Your task to perform on an android device: change text size in settings app Image 0: 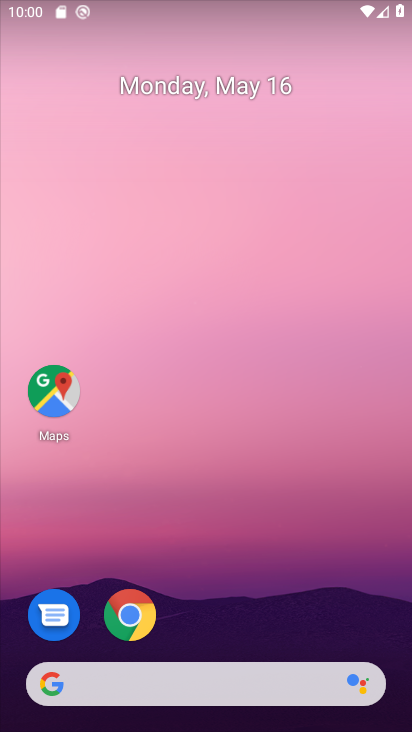
Step 0: drag from (293, 604) to (220, 53)
Your task to perform on an android device: change text size in settings app Image 1: 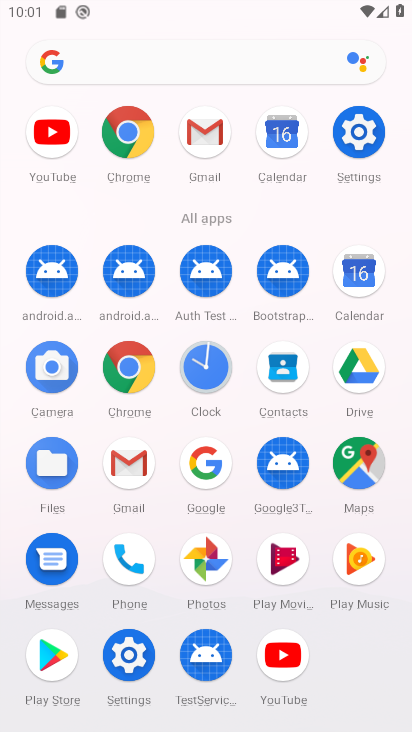
Step 1: drag from (2, 514) to (1, 283)
Your task to perform on an android device: change text size in settings app Image 2: 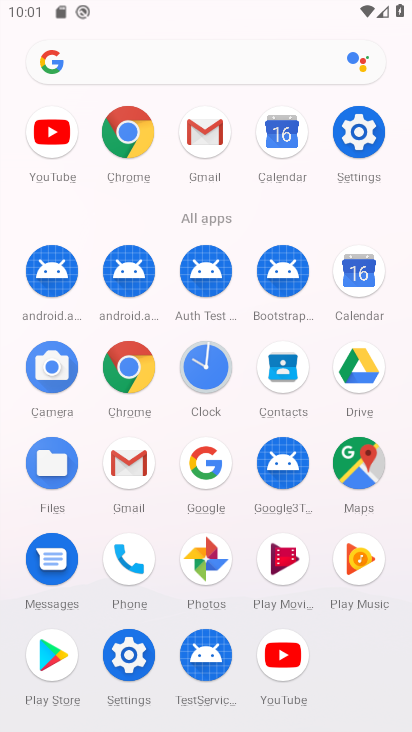
Step 2: click (124, 649)
Your task to perform on an android device: change text size in settings app Image 3: 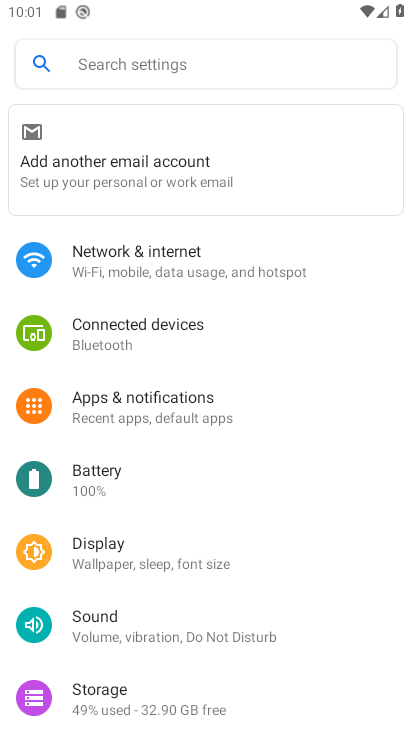
Step 3: click (150, 556)
Your task to perform on an android device: change text size in settings app Image 4: 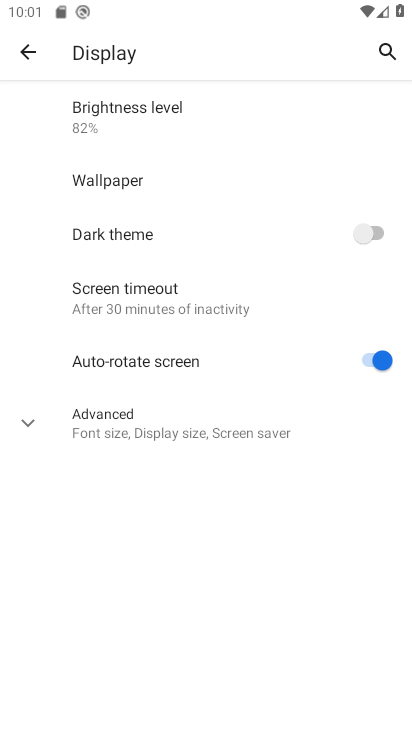
Step 4: click (34, 430)
Your task to perform on an android device: change text size in settings app Image 5: 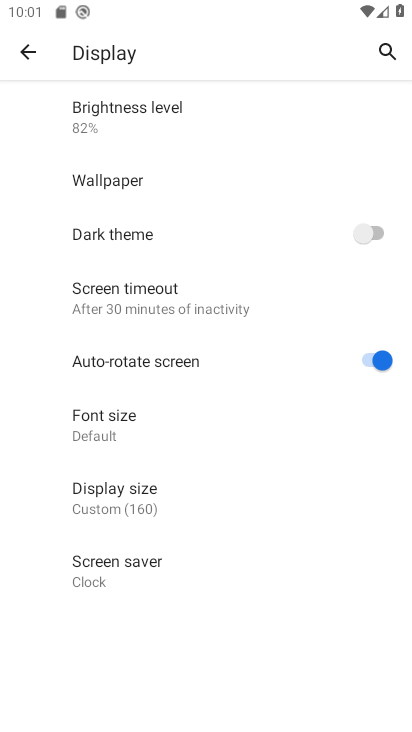
Step 5: click (142, 420)
Your task to perform on an android device: change text size in settings app Image 6: 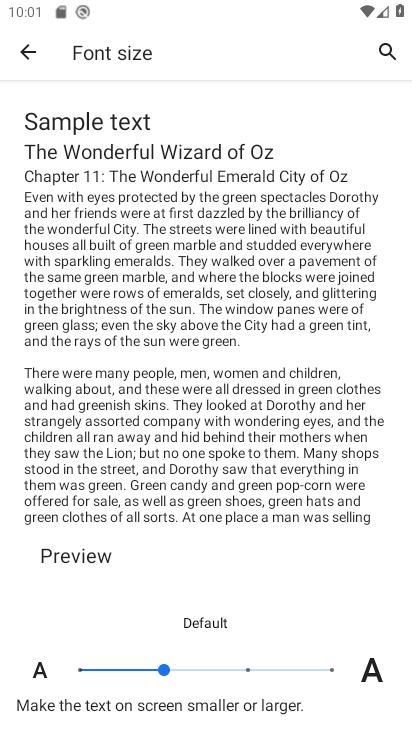
Step 6: click (319, 652)
Your task to perform on an android device: change text size in settings app Image 7: 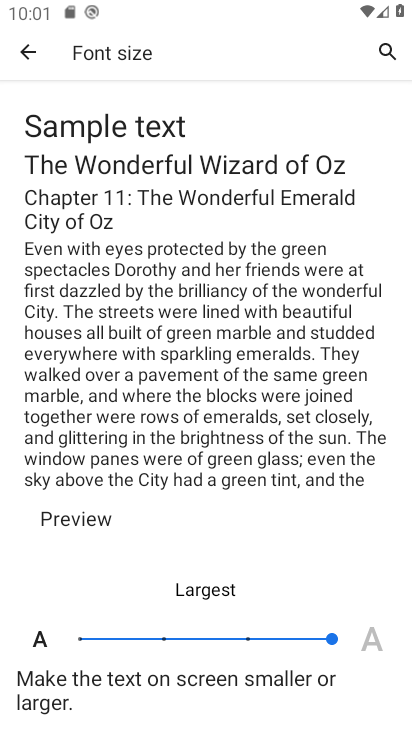
Step 7: task complete